Your task to perform on an android device: move an email to a new category in the gmail app Image 0: 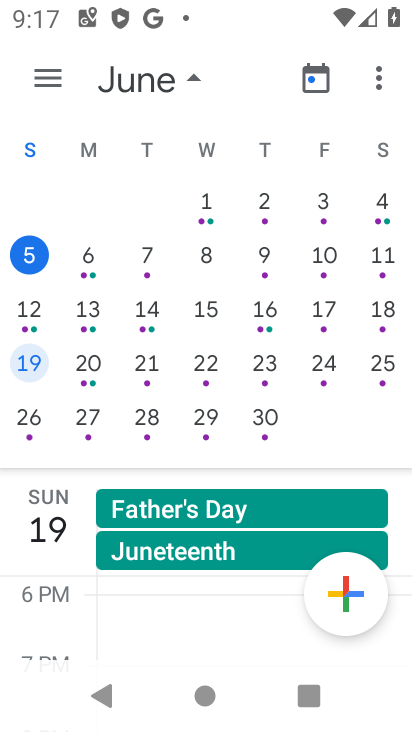
Step 0: press home button
Your task to perform on an android device: move an email to a new category in the gmail app Image 1: 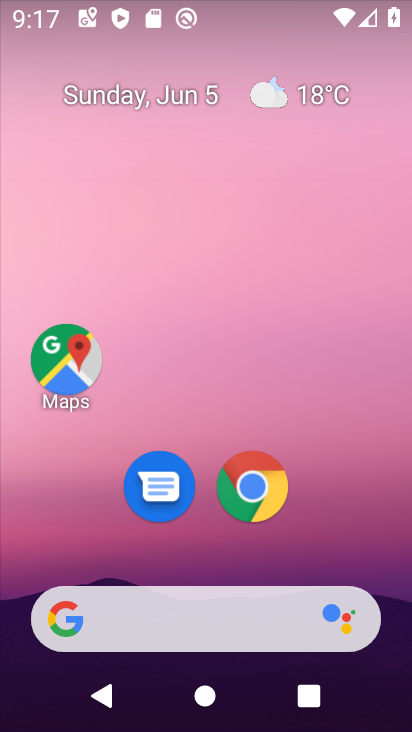
Step 1: drag from (380, 499) to (362, 163)
Your task to perform on an android device: move an email to a new category in the gmail app Image 2: 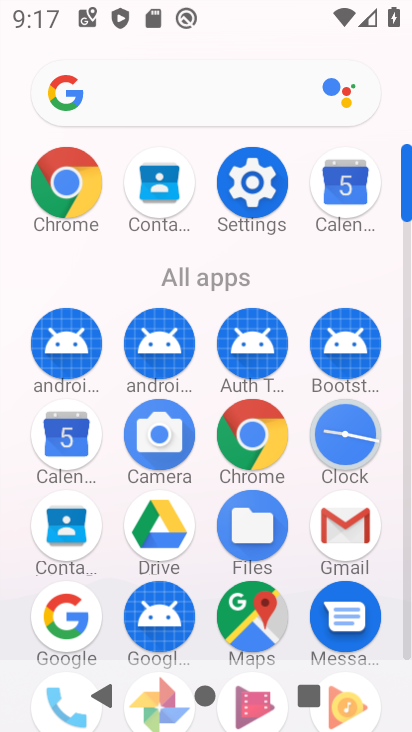
Step 2: click (348, 535)
Your task to perform on an android device: move an email to a new category in the gmail app Image 3: 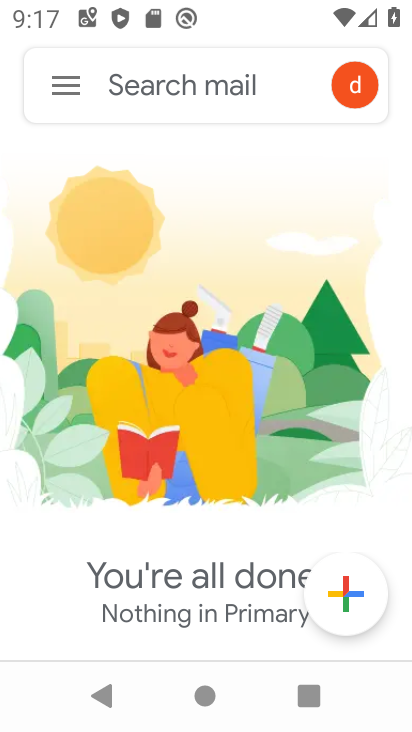
Step 3: click (74, 87)
Your task to perform on an android device: move an email to a new category in the gmail app Image 4: 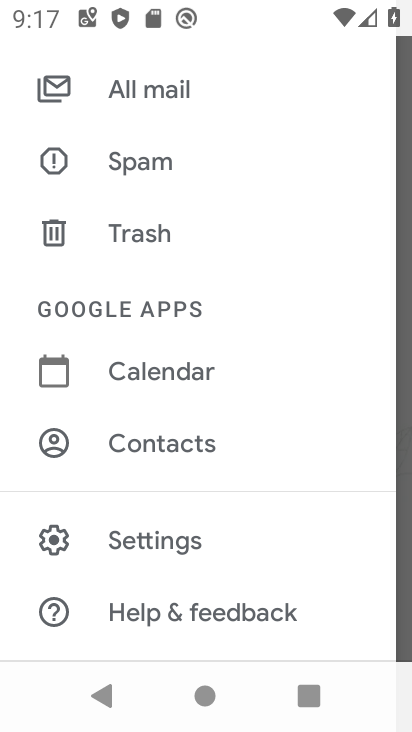
Step 4: click (174, 91)
Your task to perform on an android device: move an email to a new category in the gmail app Image 5: 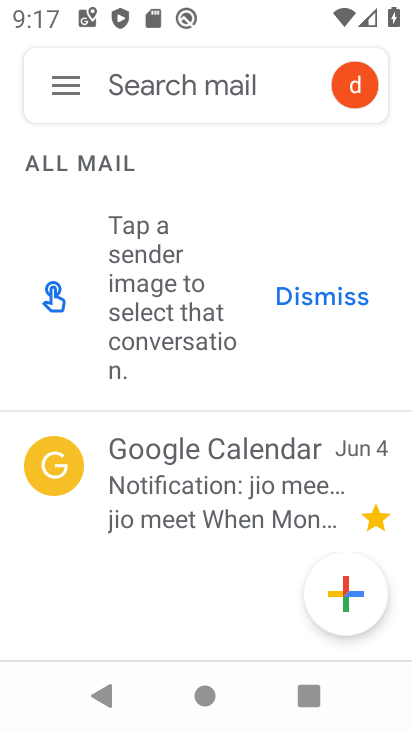
Step 5: click (285, 472)
Your task to perform on an android device: move an email to a new category in the gmail app Image 6: 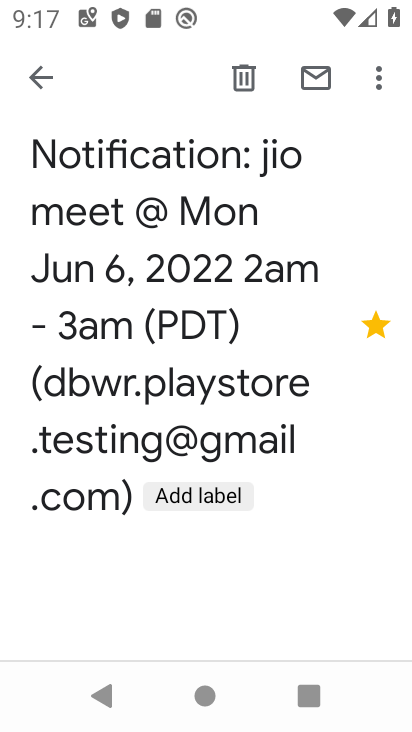
Step 6: click (375, 85)
Your task to perform on an android device: move an email to a new category in the gmail app Image 7: 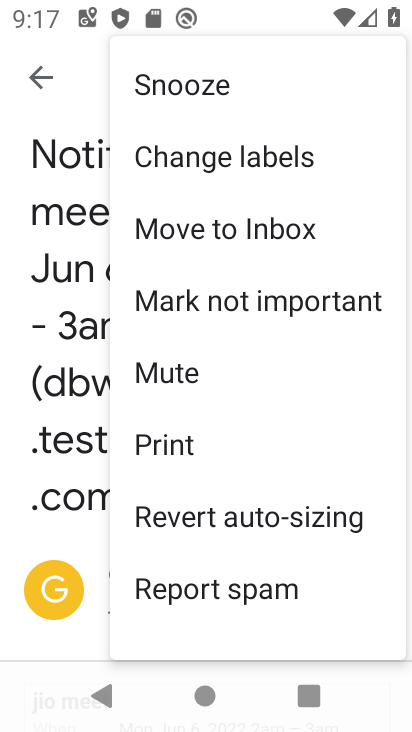
Step 7: click (260, 226)
Your task to perform on an android device: move an email to a new category in the gmail app Image 8: 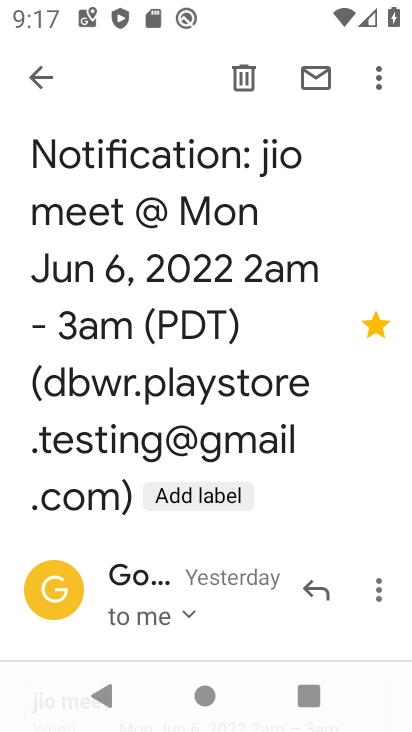
Step 8: task complete